Your task to perform on an android device: turn on wifi Image 0: 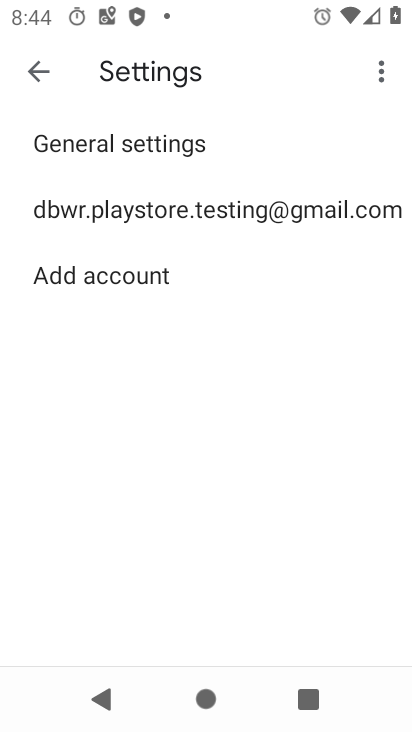
Step 0: press back button
Your task to perform on an android device: turn on wifi Image 1: 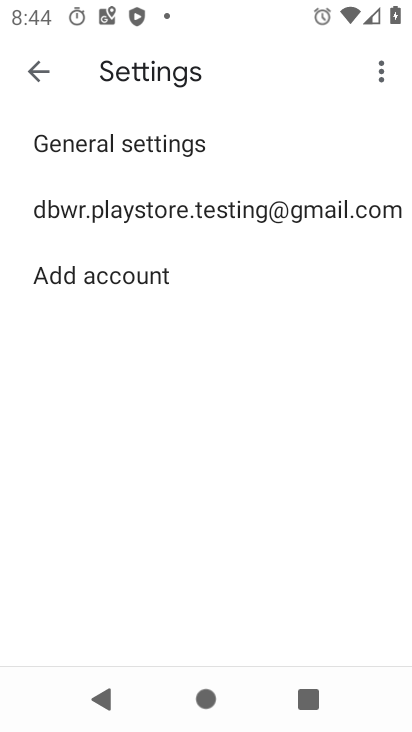
Step 1: press back button
Your task to perform on an android device: turn on wifi Image 2: 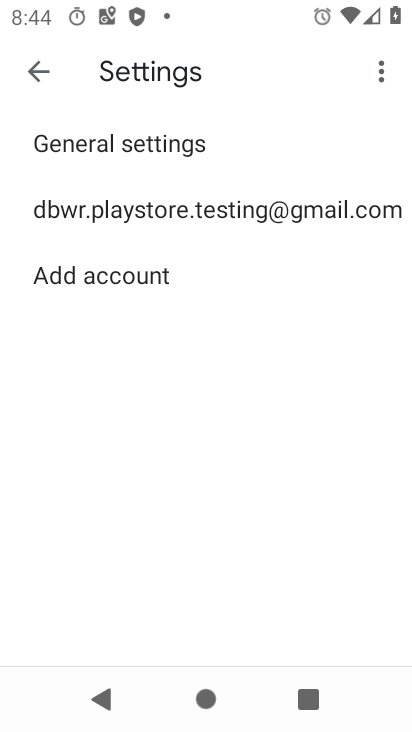
Step 2: press home button
Your task to perform on an android device: turn on wifi Image 3: 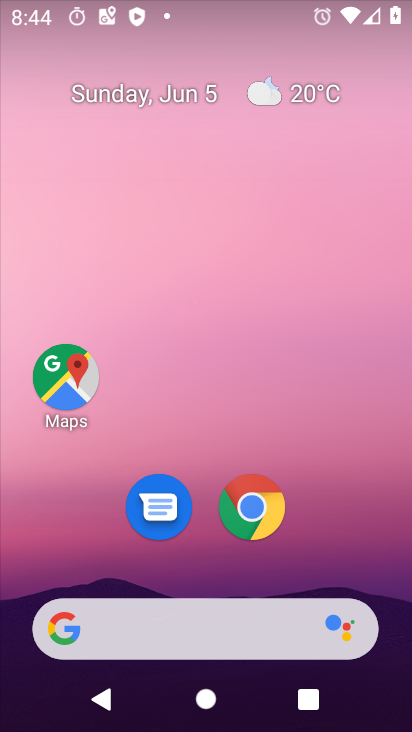
Step 3: drag from (355, 549) to (230, 46)
Your task to perform on an android device: turn on wifi Image 4: 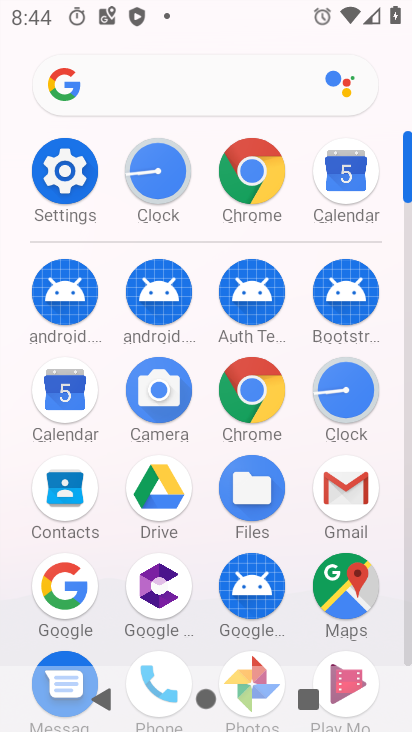
Step 4: click (63, 168)
Your task to perform on an android device: turn on wifi Image 5: 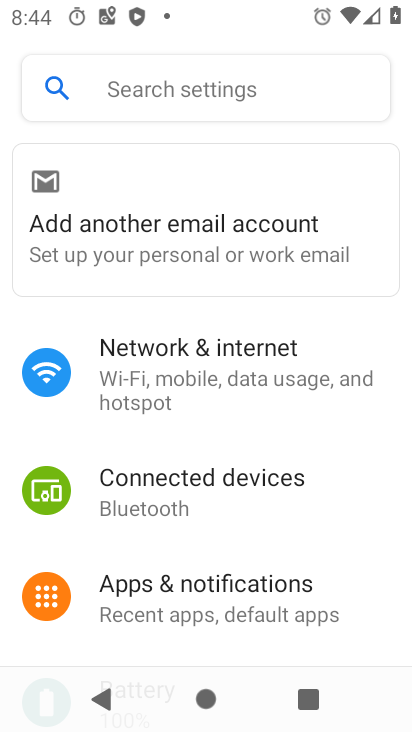
Step 5: click (183, 387)
Your task to perform on an android device: turn on wifi Image 6: 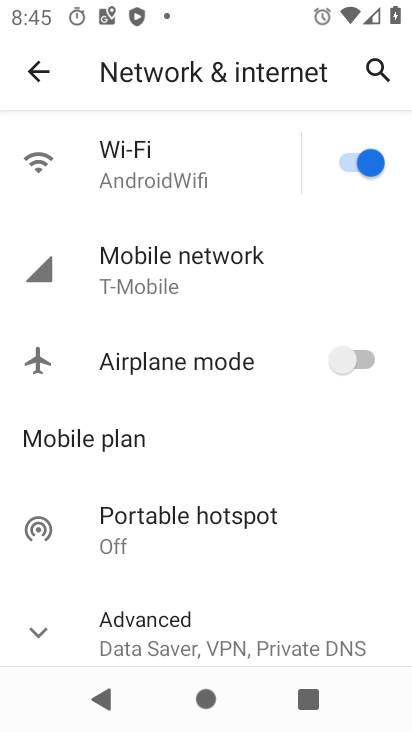
Step 6: click (35, 621)
Your task to perform on an android device: turn on wifi Image 7: 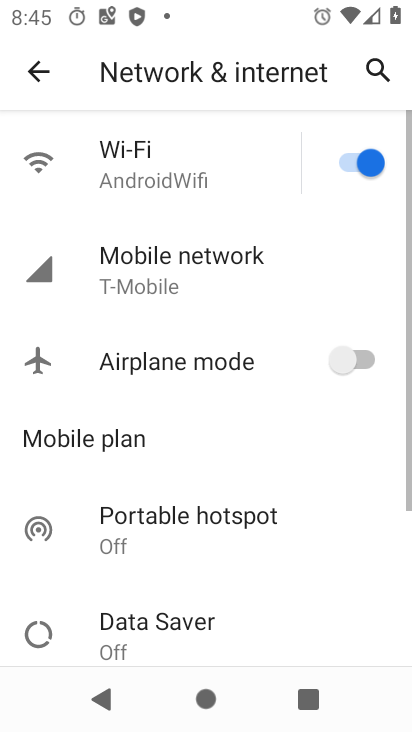
Step 7: task complete